Your task to perform on an android device: Open eBay Image 0: 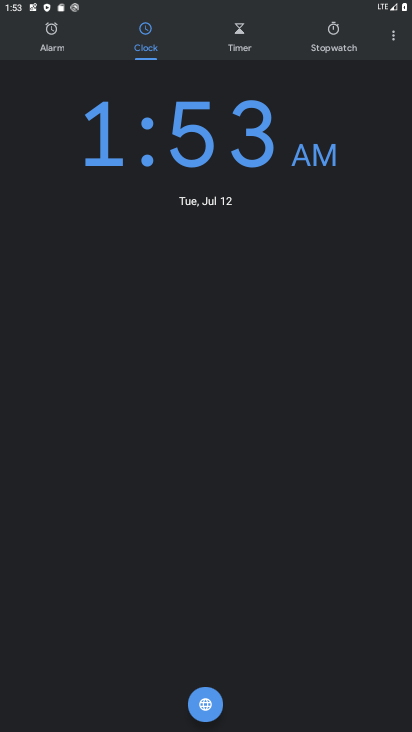
Step 0: press home button
Your task to perform on an android device: Open eBay Image 1: 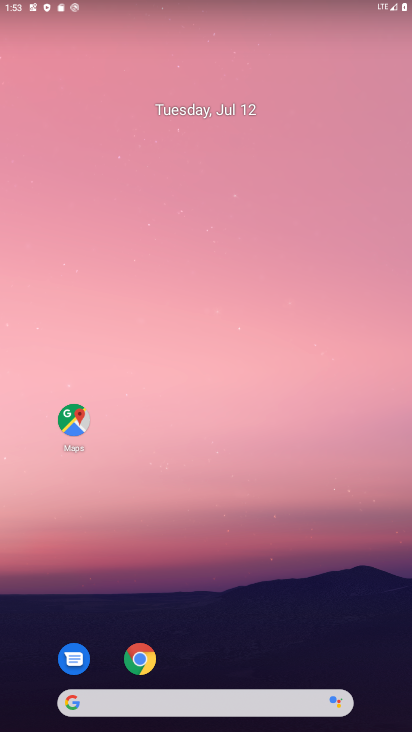
Step 1: click (138, 661)
Your task to perform on an android device: Open eBay Image 2: 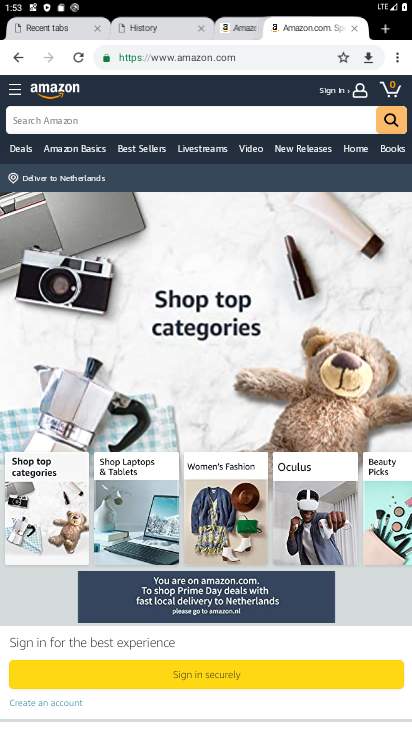
Step 2: click (398, 62)
Your task to perform on an android device: Open eBay Image 3: 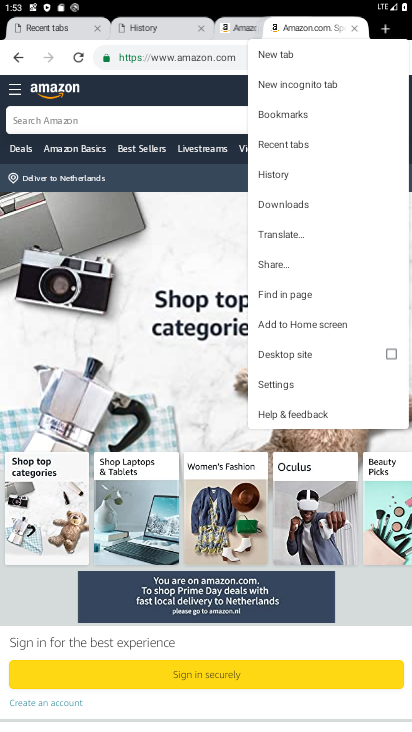
Step 3: click (287, 52)
Your task to perform on an android device: Open eBay Image 4: 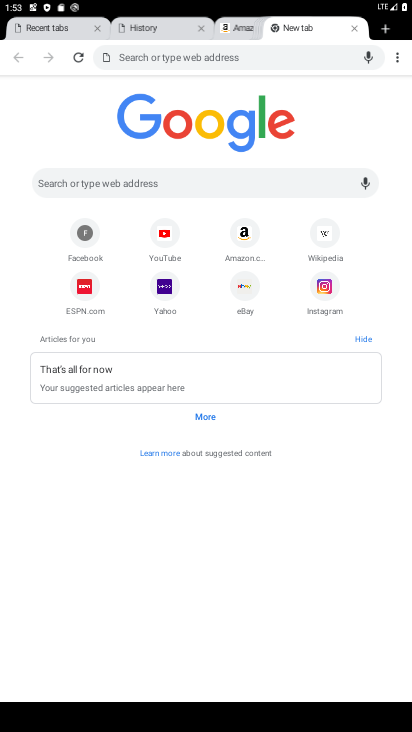
Step 4: click (245, 283)
Your task to perform on an android device: Open eBay Image 5: 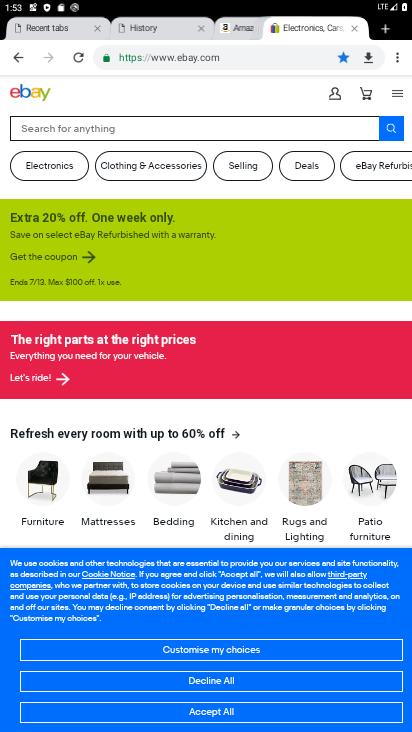
Step 5: task complete